Your task to perform on an android device: Open Google Maps and go to "Timeline" Image 0: 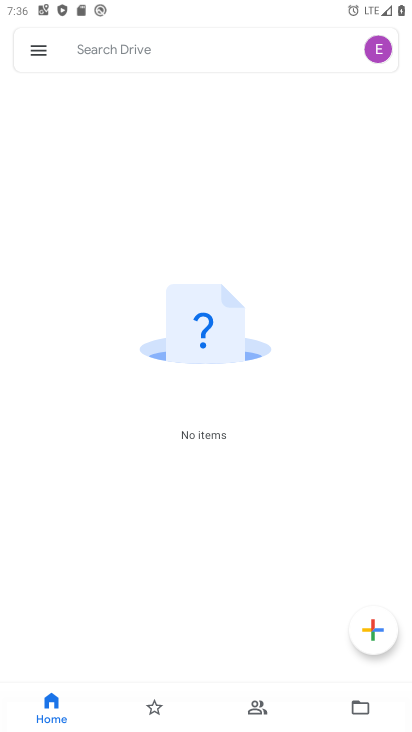
Step 0: press home button
Your task to perform on an android device: Open Google Maps and go to "Timeline" Image 1: 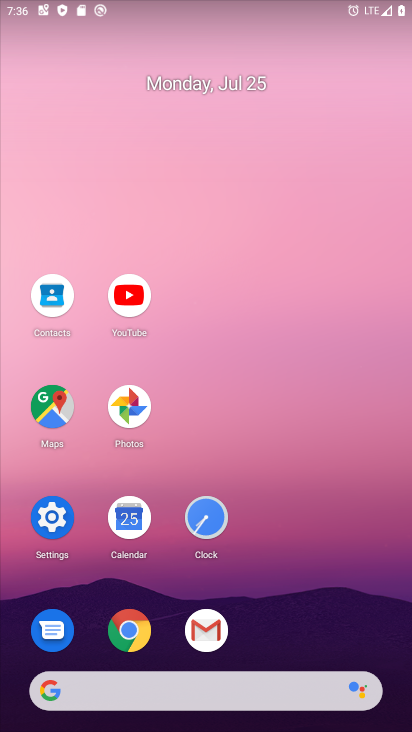
Step 1: click (44, 411)
Your task to perform on an android device: Open Google Maps and go to "Timeline" Image 2: 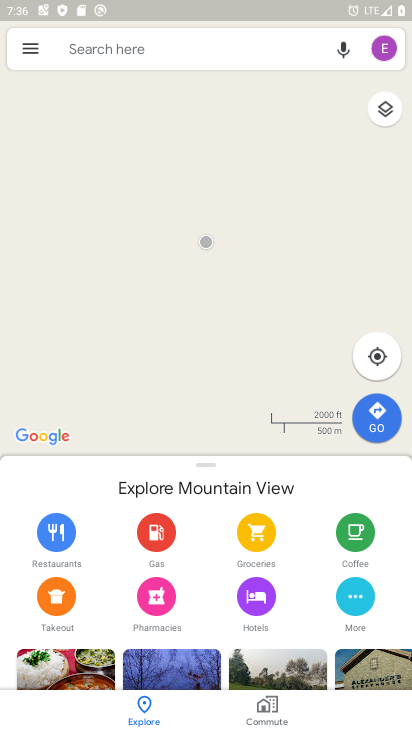
Step 2: click (26, 48)
Your task to perform on an android device: Open Google Maps and go to "Timeline" Image 3: 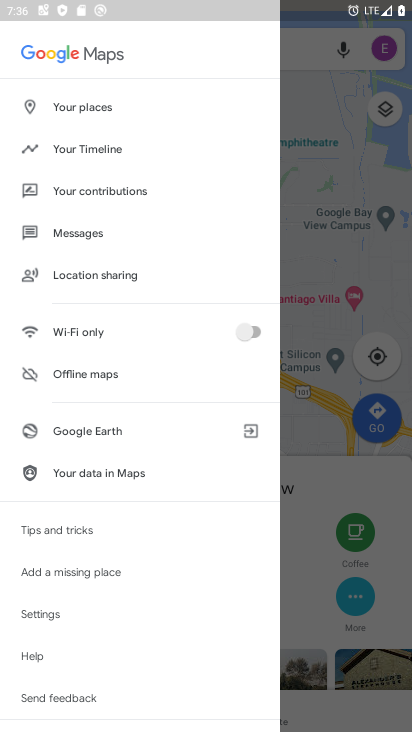
Step 3: click (78, 149)
Your task to perform on an android device: Open Google Maps and go to "Timeline" Image 4: 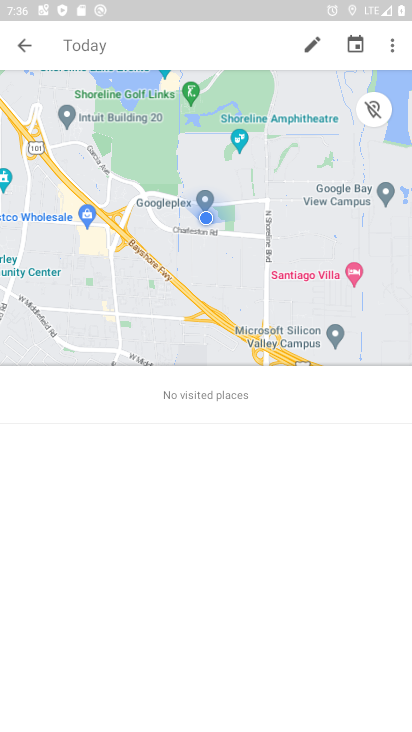
Step 4: task complete